Your task to perform on an android device: see creations saved in the google photos Image 0: 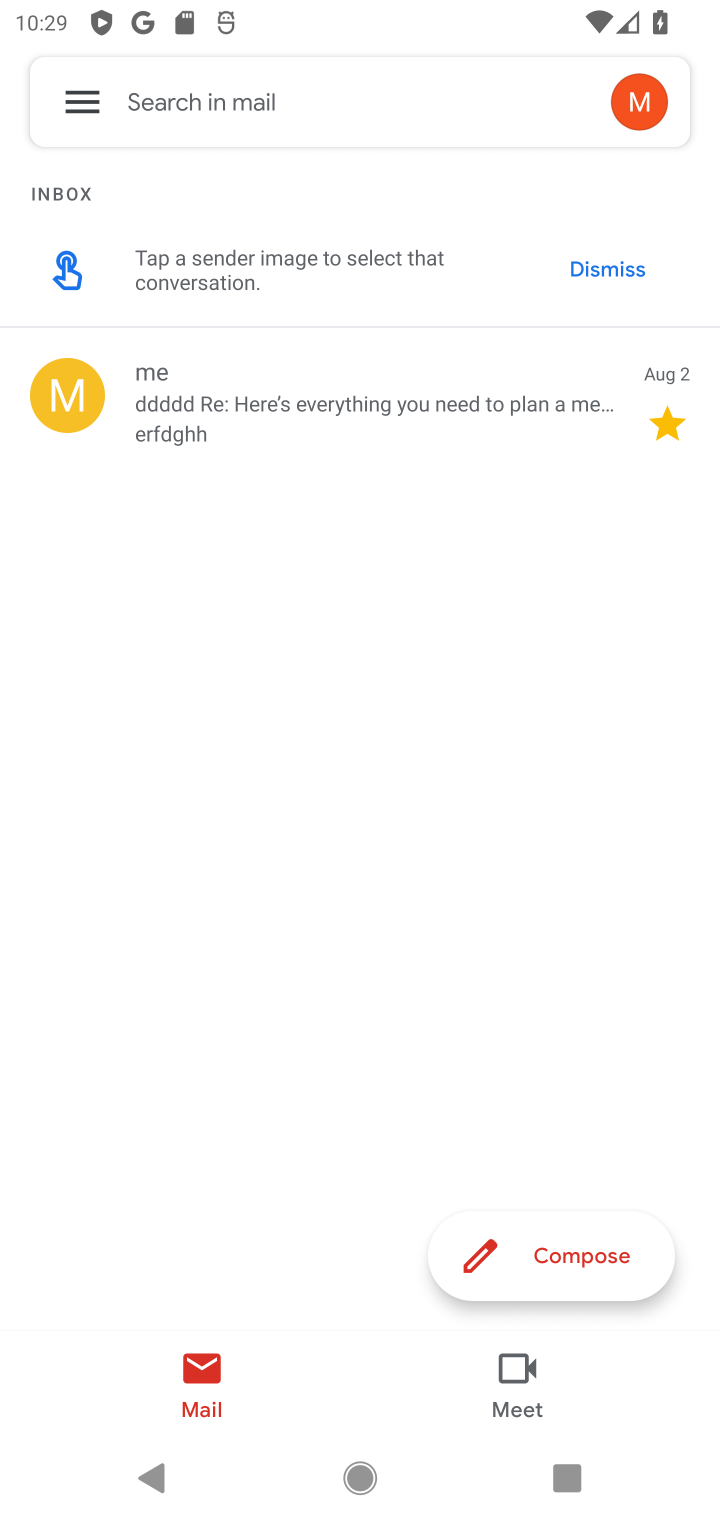
Step 0: press home button
Your task to perform on an android device: see creations saved in the google photos Image 1: 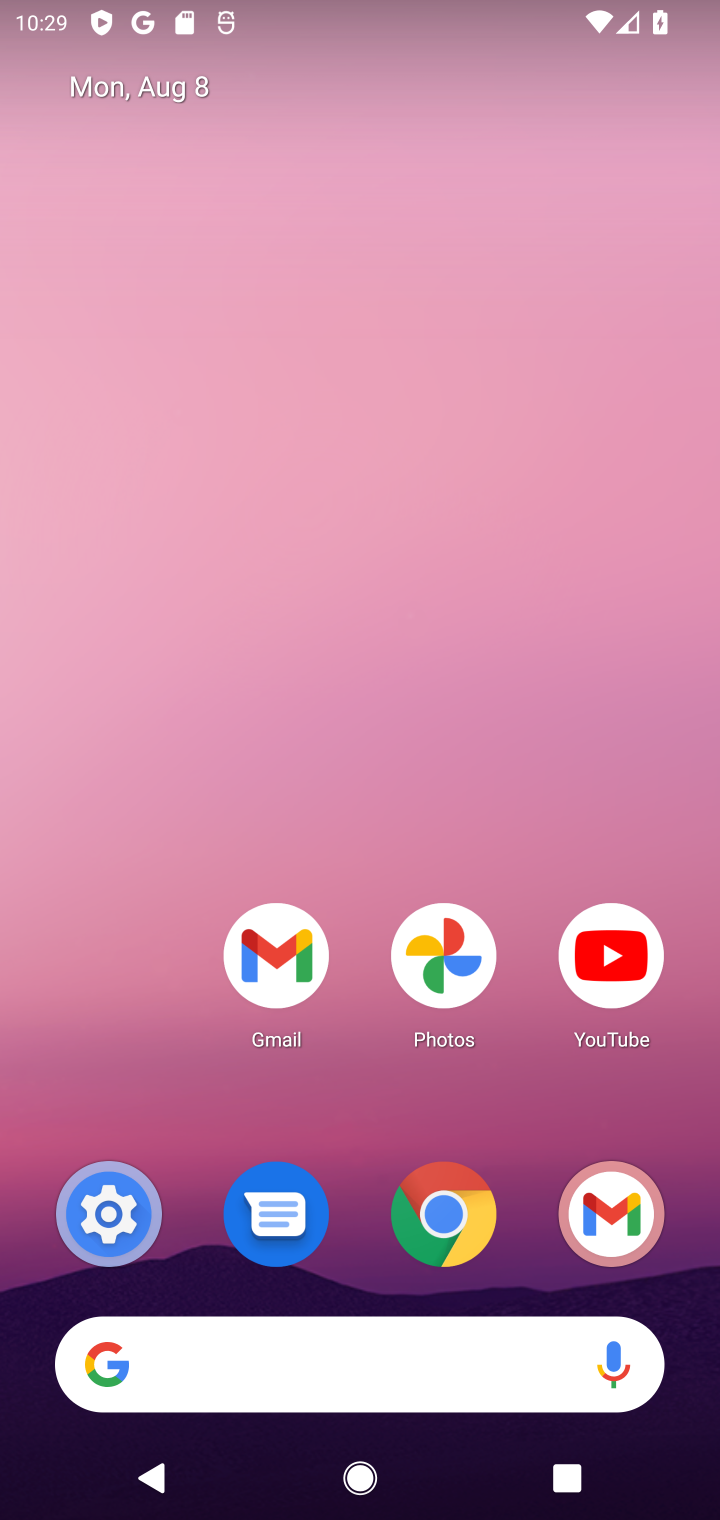
Step 1: drag from (16, 1341) to (110, 432)
Your task to perform on an android device: see creations saved in the google photos Image 2: 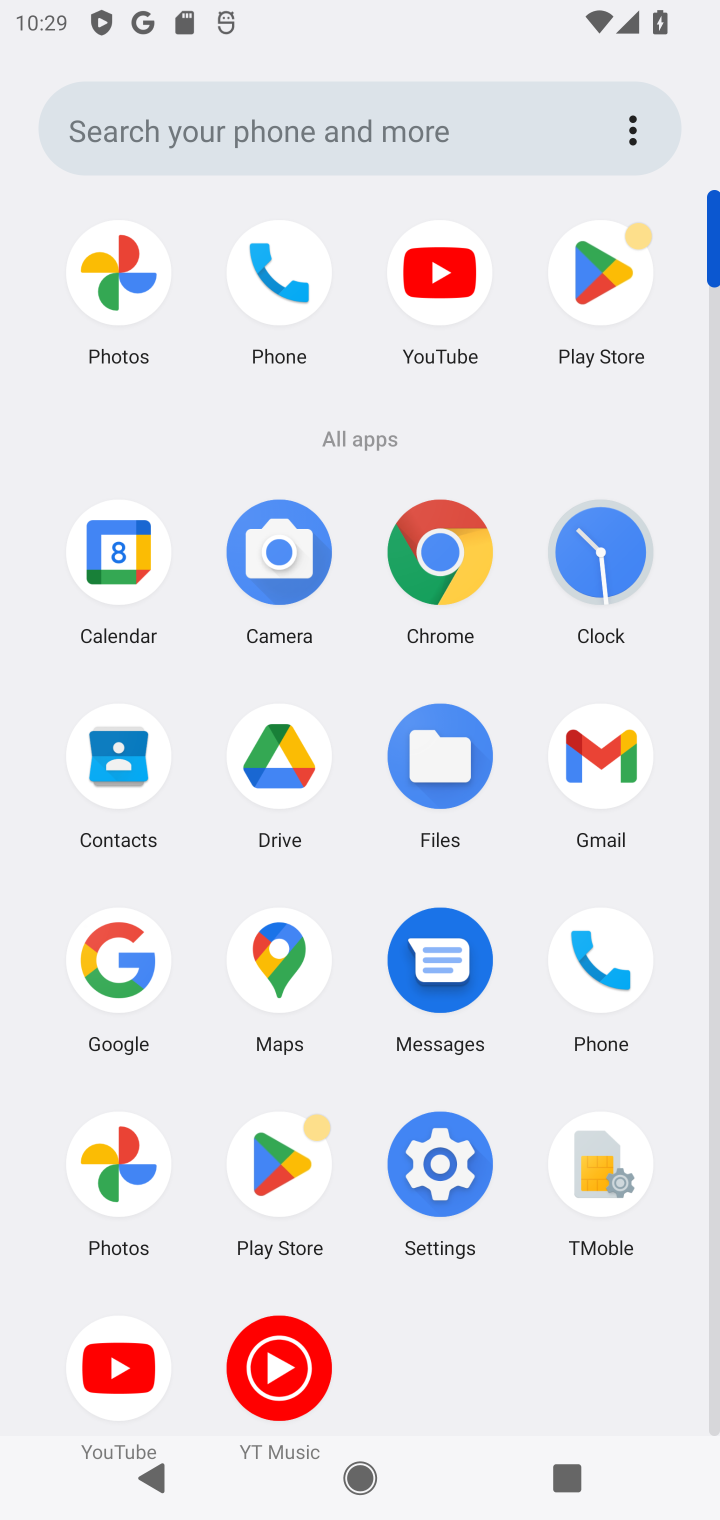
Step 2: click (140, 1179)
Your task to perform on an android device: see creations saved in the google photos Image 3: 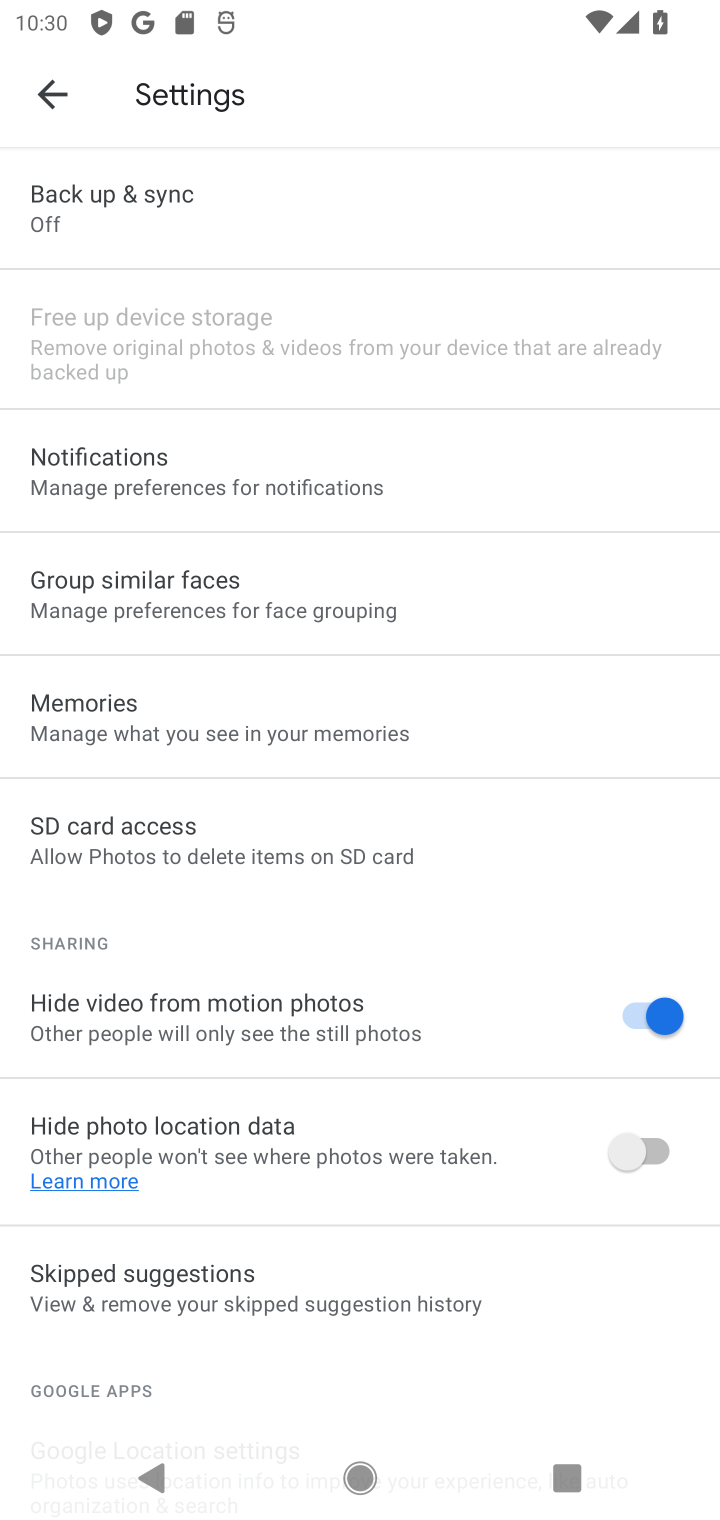
Step 3: click (43, 110)
Your task to perform on an android device: see creations saved in the google photos Image 4: 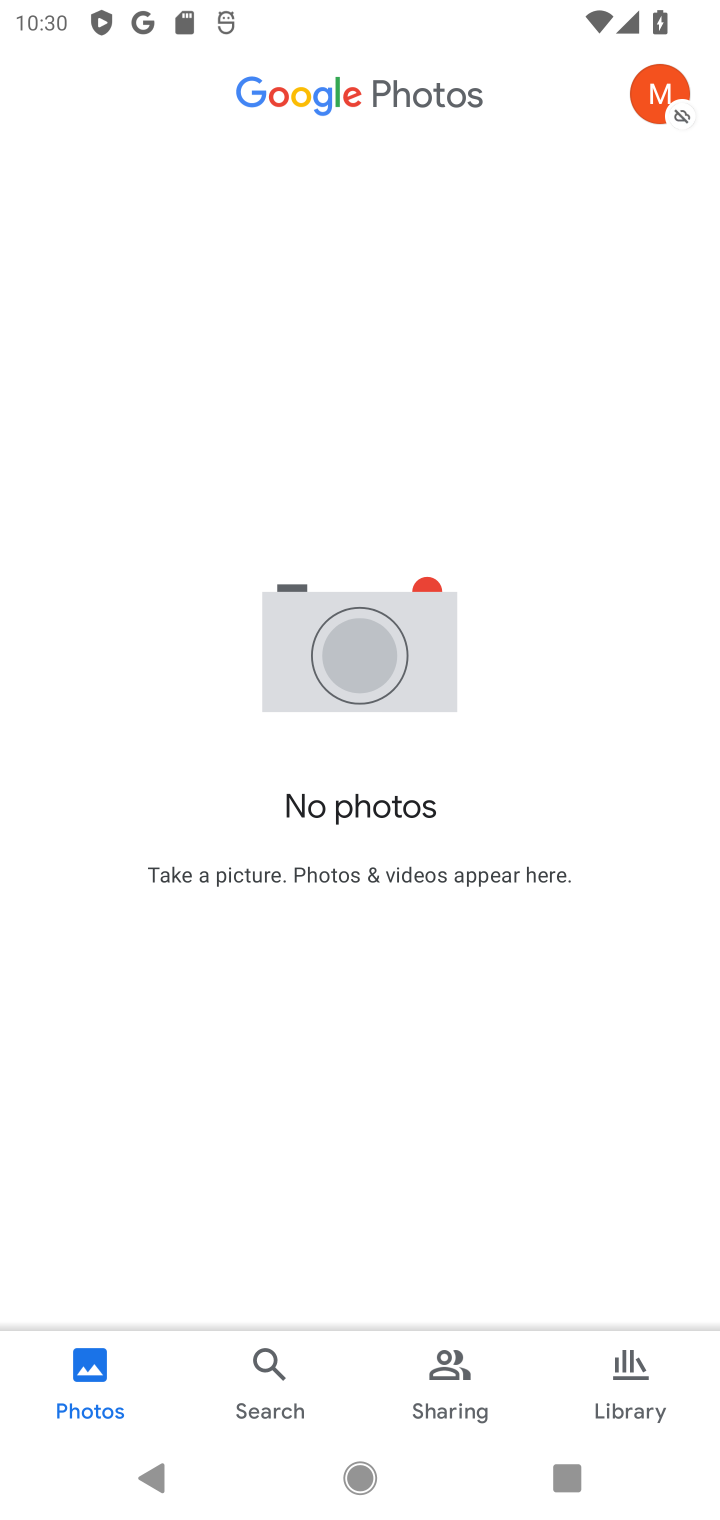
Step 4: task complete